Your task to perform on an android device: Open Chrome and go to the settings page Image 0: 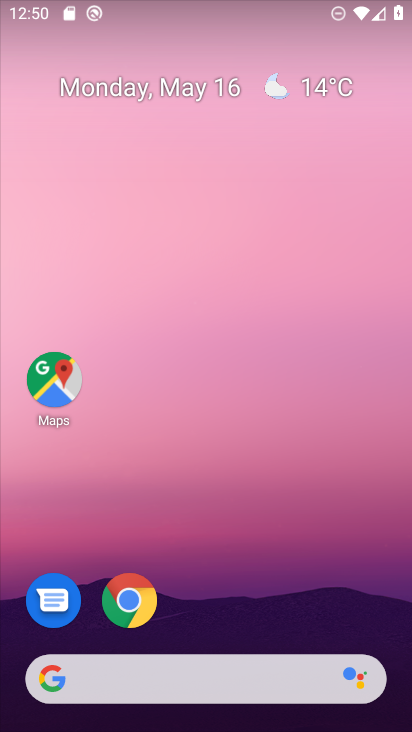
Step 0: drag from (224, 634) to (259, 39)
Your task to perform on an android device: Open Chrome and go to the settings page Image 1: 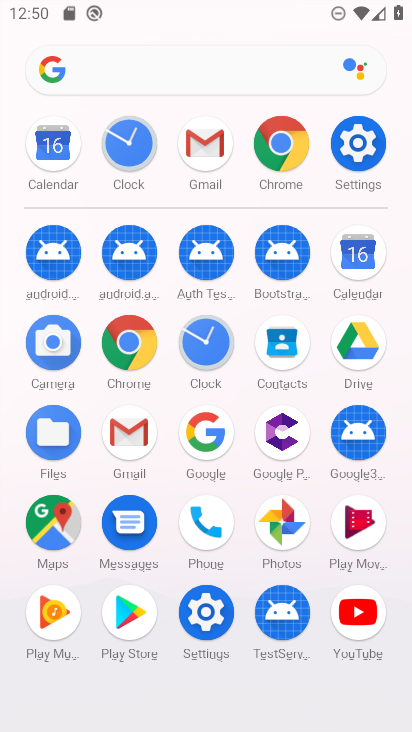
Step 1: click (357, 137)
Your task to perform on an android device: Open Chrome and go to the settings page Image 2: 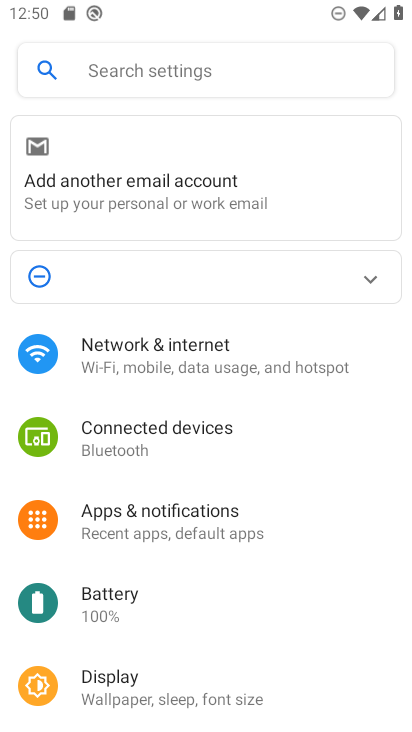
Step 2: press home button
Your task to perform on an android device: Open Chrome and go to the settings page Image 3: 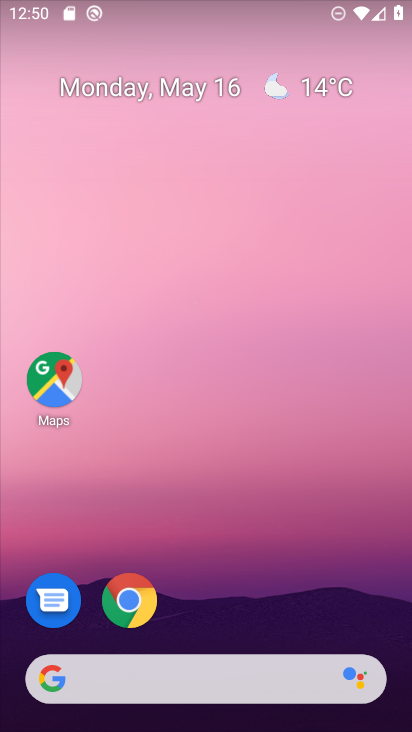
Step 3: click (127, 593)
Your task to perform on an android device: Open Chrome and go to the settings page Image 4: 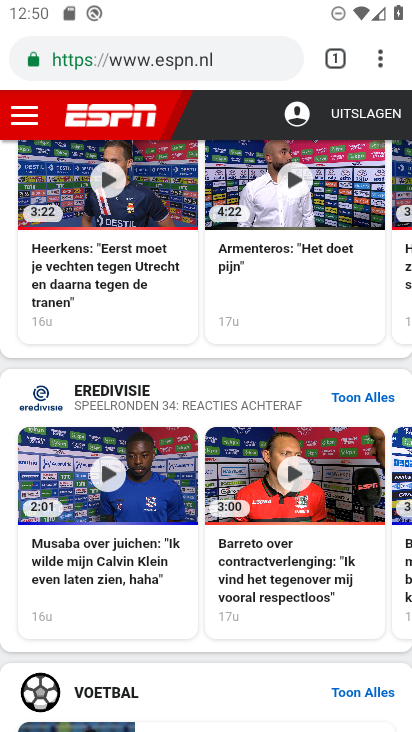
Step 4: drag from (235, 111) to (235, 634)
Your task to perform on an android device: Open Chrome and go to the settings page Image 5: 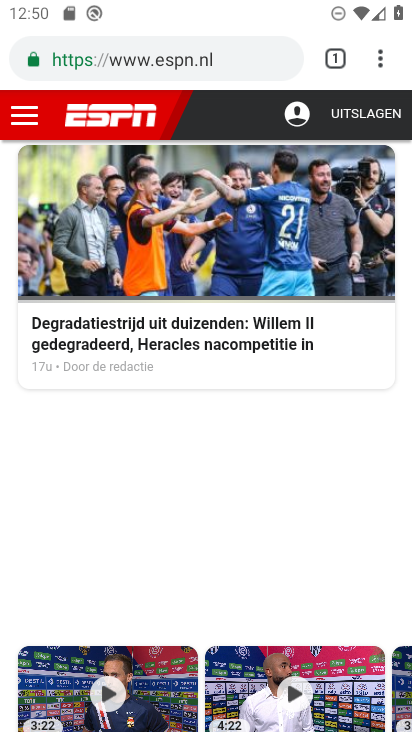
Step 5: click (383, 56)
Your task to perform on an android device: Open Chrome and go to the settings page Image 6: 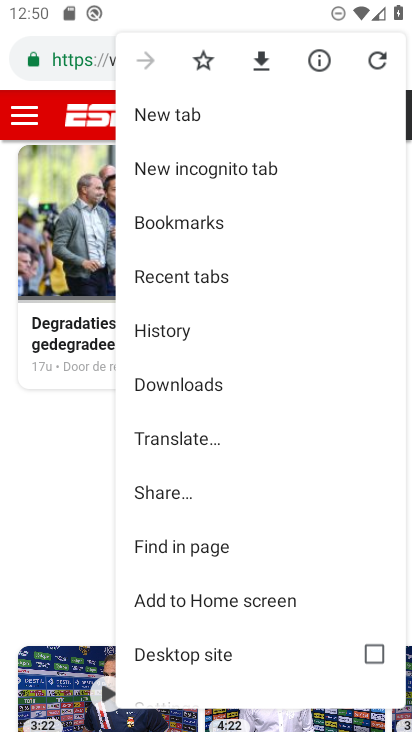
Step 6: drag from (263, 432) to (288, 127)
Your task to perform on an android device: Open Chrome and go to the settings page Image 7: 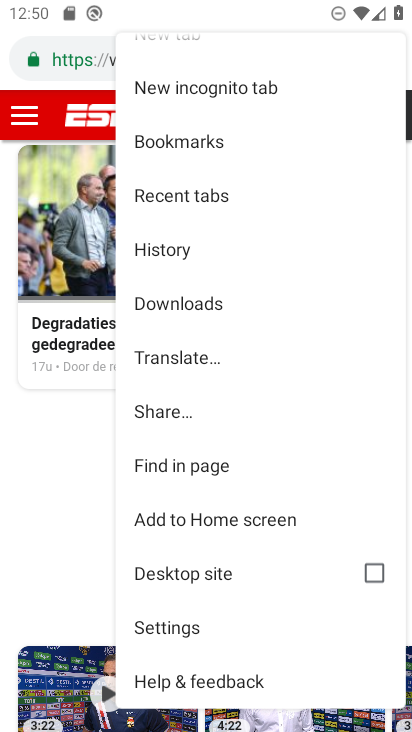
Step 7: click (206, 621)
Your task to perform on an android device: Open Chrome and go to the settings page Image 8: 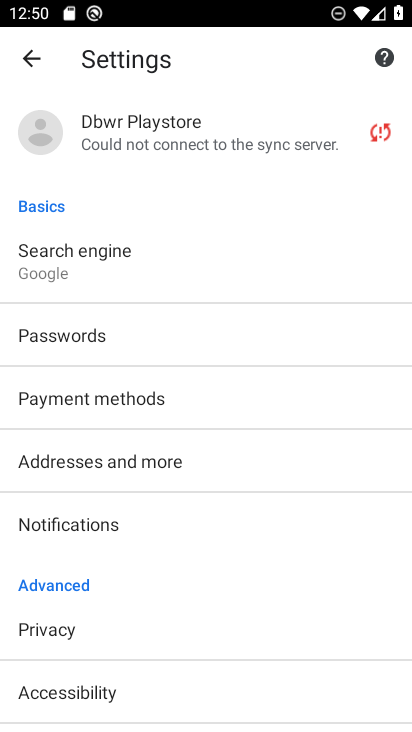
Step 8: task complete